Your task to perform on an android device: Search for Italian restaurants on Maps Image 0: 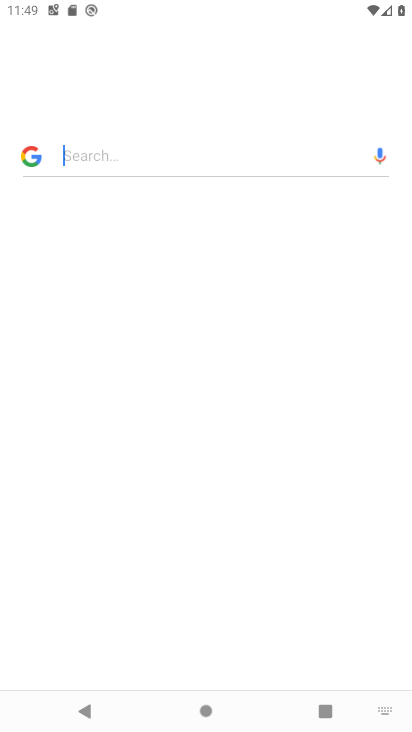
Step 0: drag from (258, 611) to (139, 36)
Your task to perform on an android device: Search for Italian restaurants on Maps Image 1: 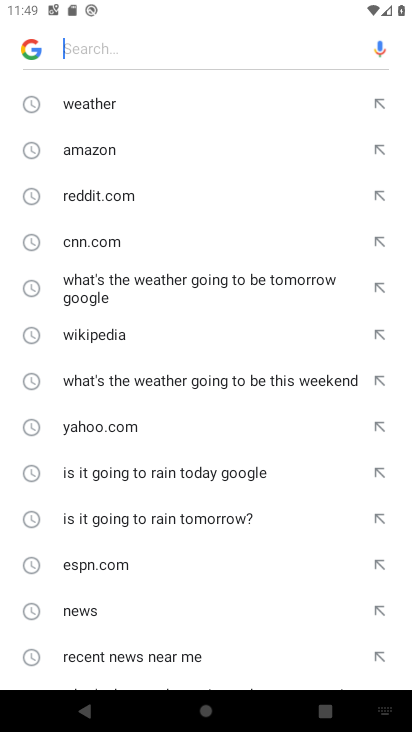
Step 1: press back button
Your task to perform on an android device: Search for Italian restaurants on Maps Image 2: 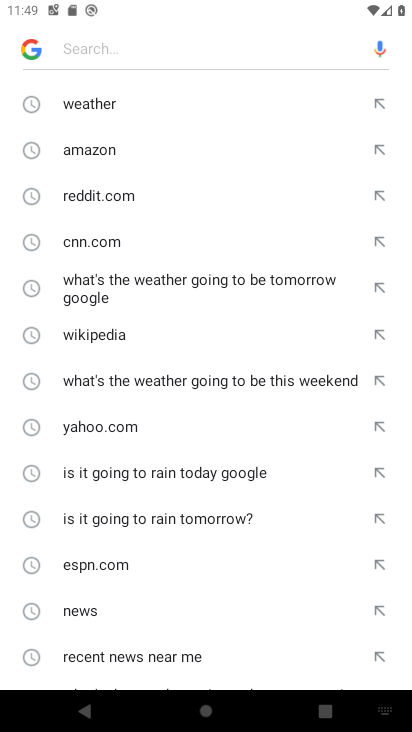
Step 2: press back button
Your task to perform on an android device: Search for Italian restaurants on Maps Image 3: 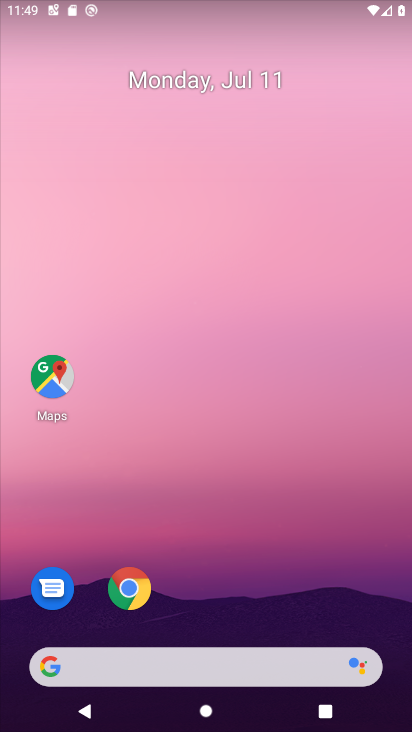
Step 3: drag from (251, 616) to (199, 90)
Your task to perform on an android device: Search for Italian restaurants on Maps Image 4: 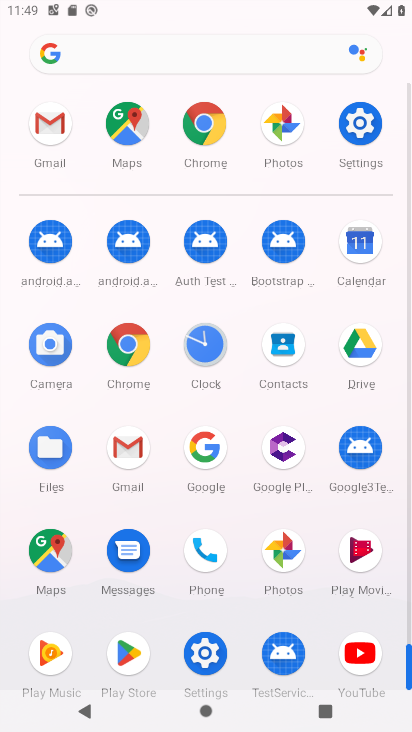
Step 4: click (45, 546)
Your task to perform on an android device: Search for Italian restaurants on Maps Image 5: 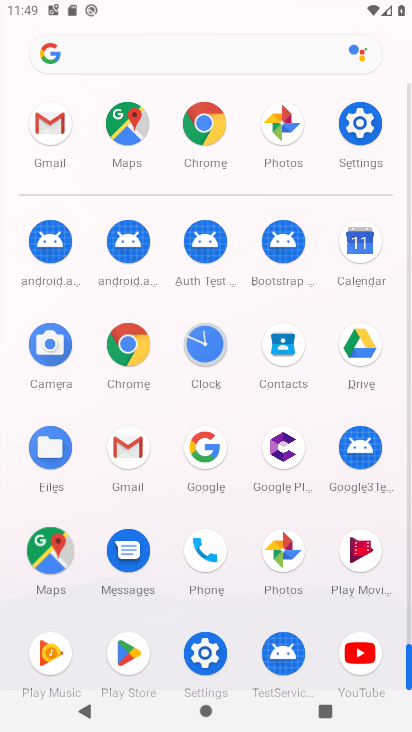
Step 5: click (44, 547)
Your task to perform on an android device: Search for Italian restaurants on Maps Image 6: 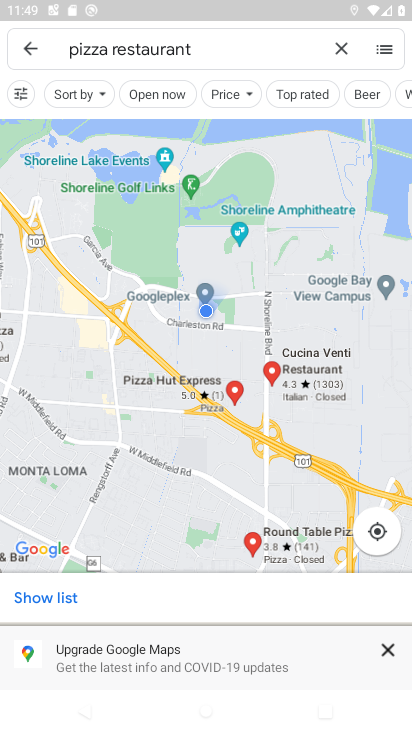
Step 6: click (340, 55)
Your task to perform on an android device: Search for Italian restaurants on Maps Image 7: 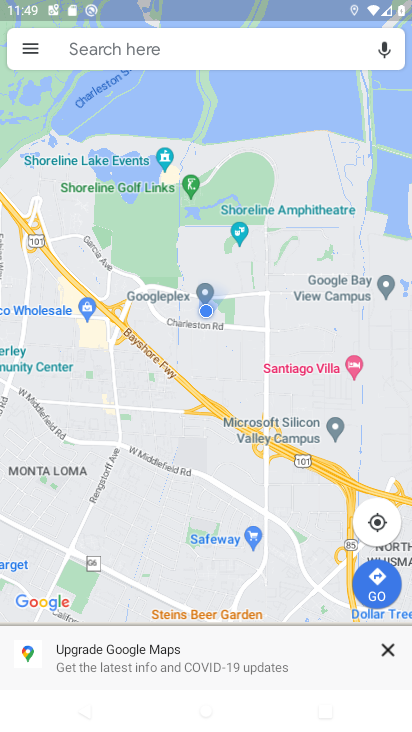
Step 7: click (337, 49)
Your task to perform on an android device: Search for Italian restaurants on Maps Image 8: 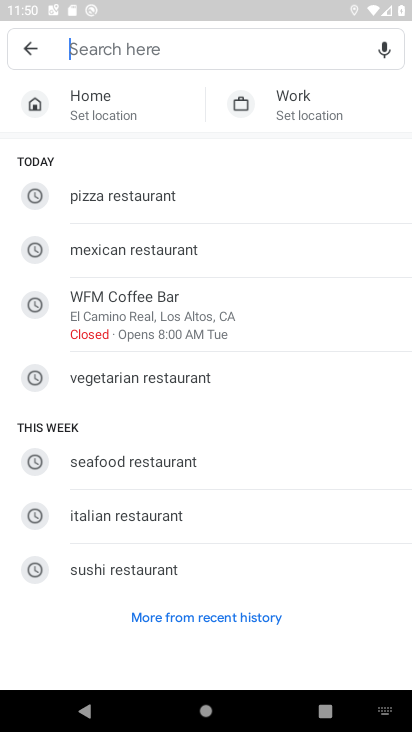
Step 8: click (102, 505)
Your task to perform on an android device: Search for Italian restaurants on Maps Image 9: 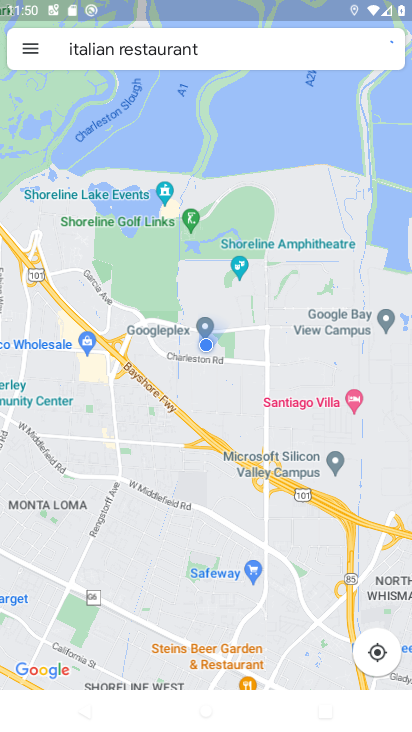
Step 9: task complete